Your task to perform on an android device: Do I have any events today? Image 0: 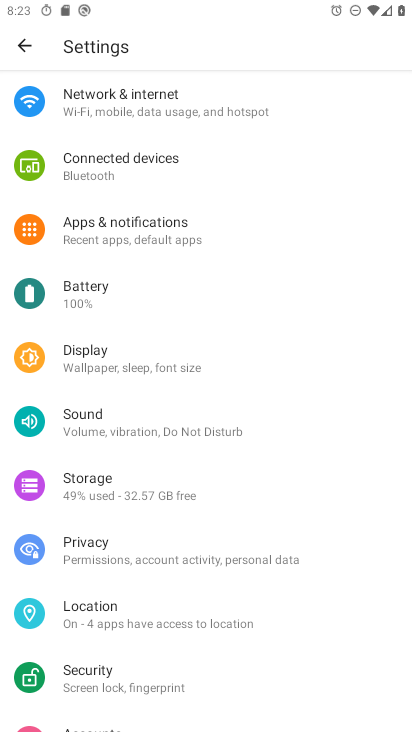
Step 0: press home button
Your task to perform on an android device: Do I have any events today? Image 1: 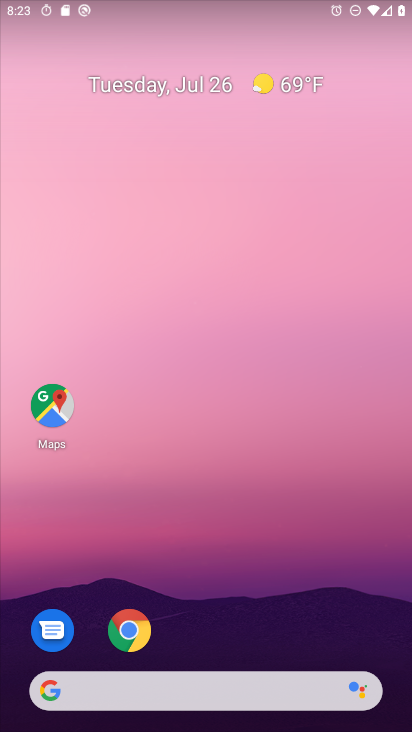
Step 1: drag from (225, 633) to (230, 165)
Your task to perform on an android device: Do I have any events today? Image 2: 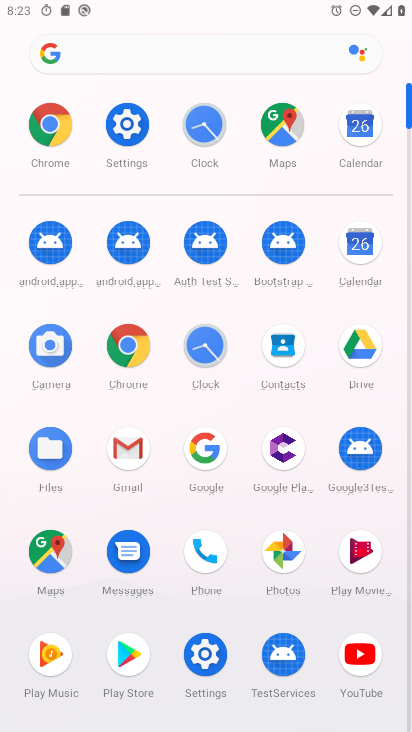
Step 2: click (370, 258)
Your task to perform on an android device: Do I have any events today? Image 3: 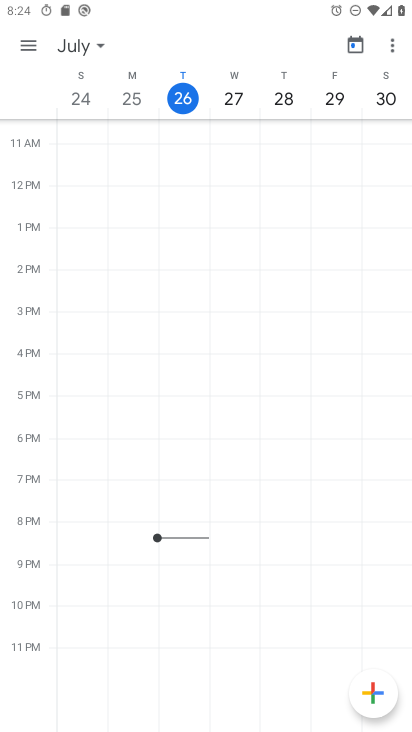
Step 3: task complete